Your task to perform on an android device: turn off data saver in the chrome app Image 0: 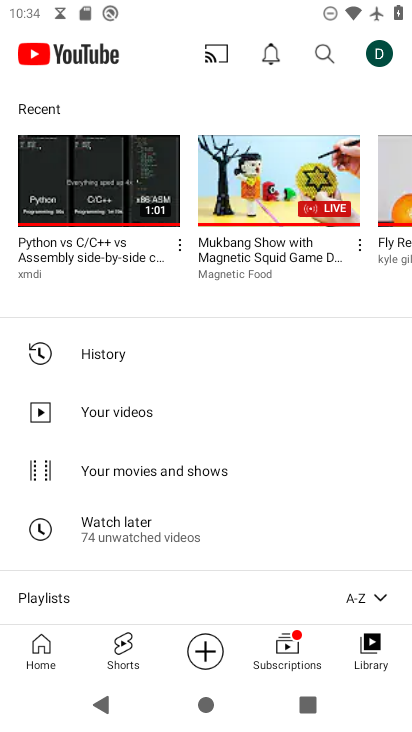
Step 0: press home button
Your task to perform on an android device: turn off data saver in the chrome app Image 1: 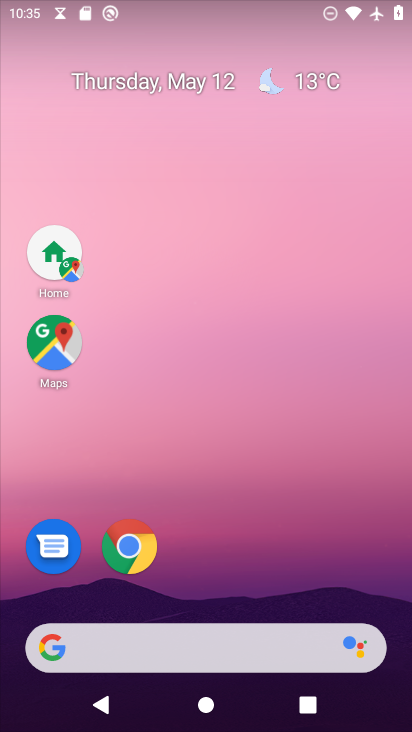
Step 1: click (131, 560)
Your task to perform on an android device: turn off data saver in the chrome app Image 2: 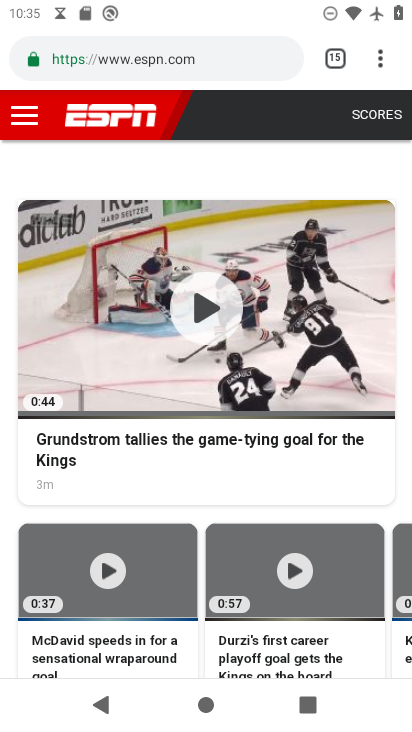
Step 2: drag from (378, 58) to (306, 572)
Your task to perform on an android device: turn off data saver in the chrome app Image 3: 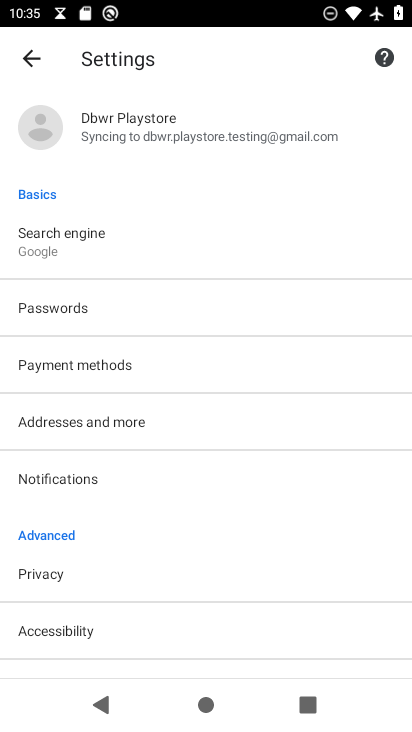
Step 3: drag from (203, 588) to (296, 311)
Your task to perform on an android device: turn off data saver in the chrome app Image 4: 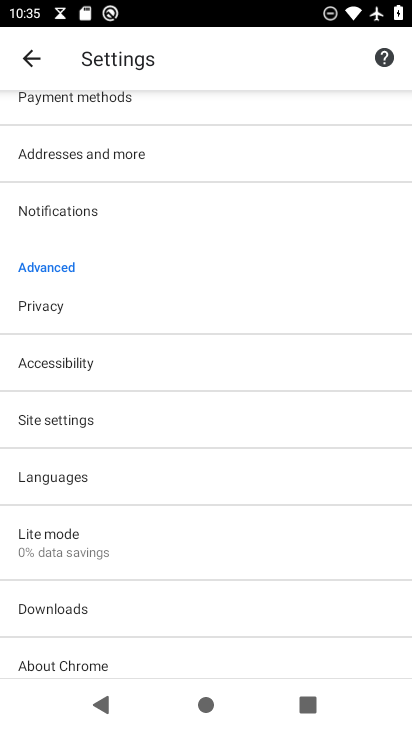
Step 4: click (84, 545)
Your task to perform on an android device: turn off data saver in the chrome app Image 5: 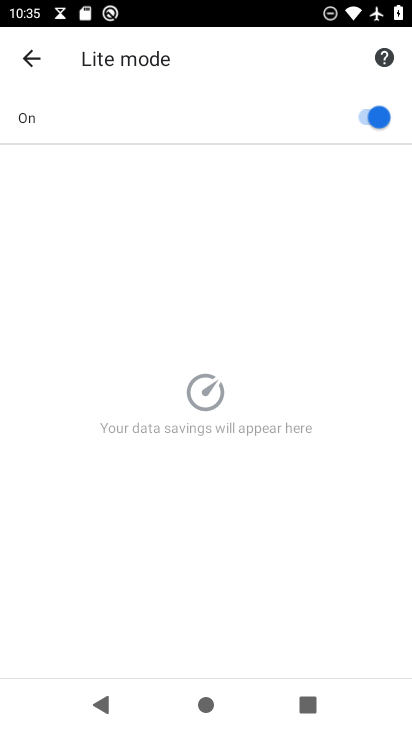
Step 5: click (366, 115)
Your task to perform on an android device: turn off data saver in the chrome app Image 6: 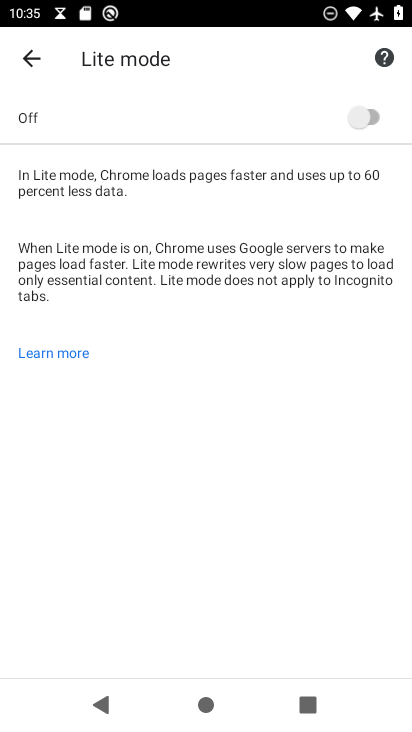
Step 6: task complete